Your task to perform on an android device: Go to network settings Image 0: 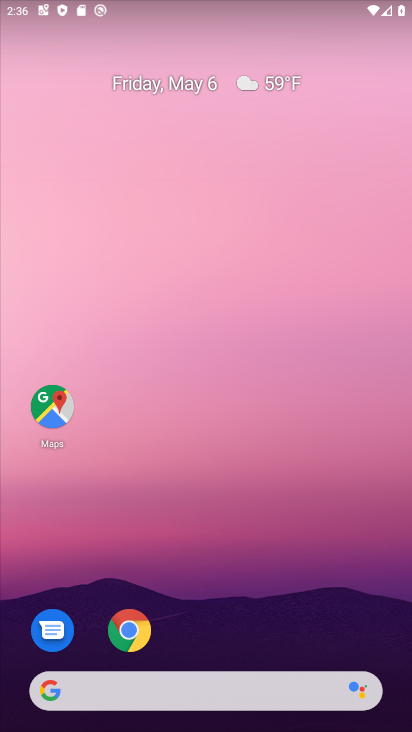
Step 0: drag from (211, 638) to (213, 196)
Your task to perform on an android device: Go to network settings Image 1: 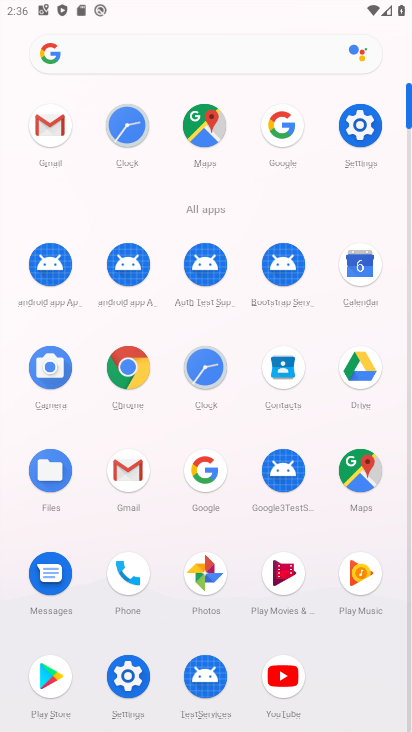
Step 1: click (375, 132)
Your task to perform on an android device: Go to network settings Image 2: 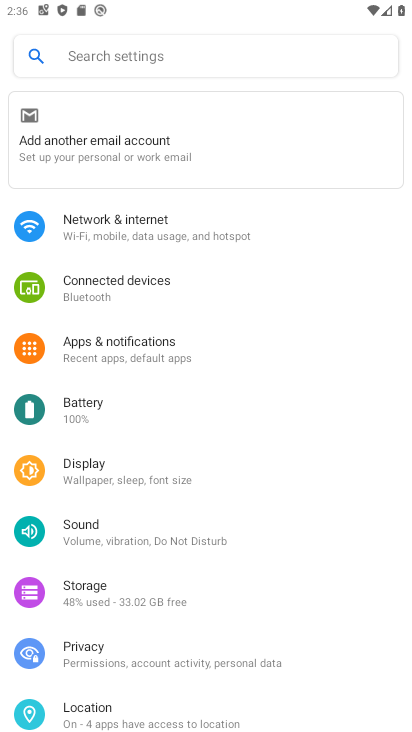
Step 2: click (171, 216)
Your task to perform on an android device: Go to network settings Image 3: 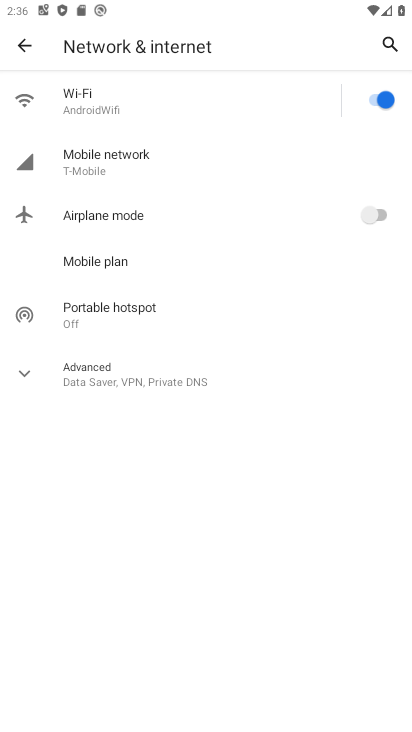
Step 3: click (189, 166)
Your task to perform on an android device: Go to network settings Image 4: 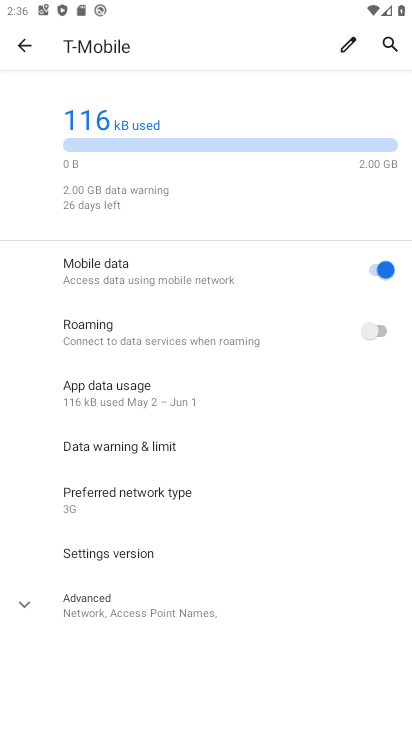
Step 4: task complete